Your task to perform on an android device: Do I have any events tomorrow? Image 0: 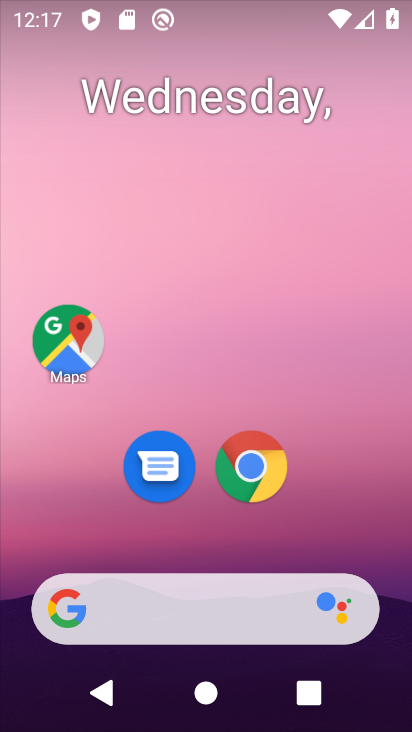
Step 0: drag from (317, 522) to (411, 32)
Your task to perform on an android device: Do I have any events tomorrow? Image 1: 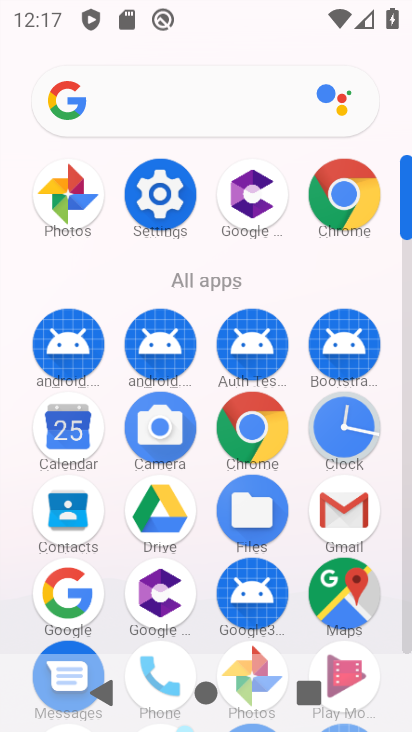
Step 1: click (68, 433)
Your task to perform on an android device: Do I have any events tomorrow? Image 2: 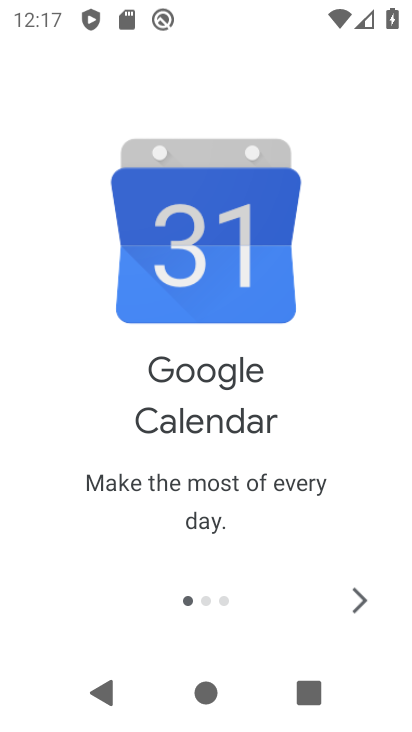
Step 2: click (362, 603)
Your task to perform on an android device: Do I have any events tomorrow? Image 3: 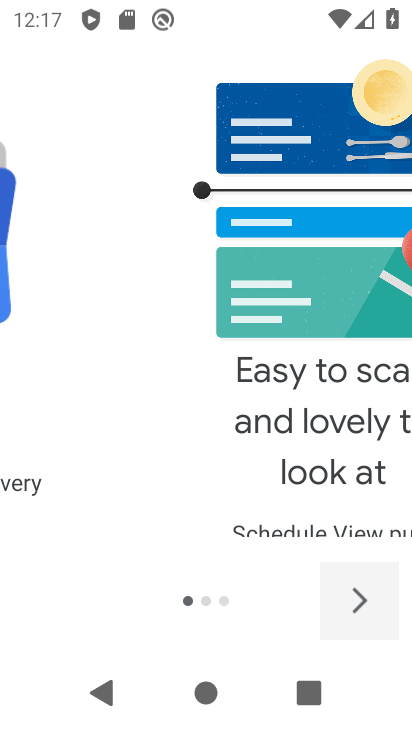
Step 3: click (362, 603)
Your task to perform on an android device: Do I have any events tomorrow? Image 4: 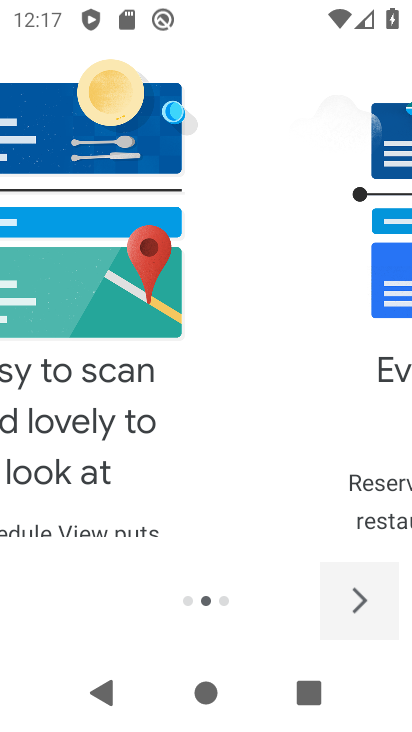
Step 4: click (362, 603)
Your task to perform on an android device: Do I have any events tomorrow? Image 5: 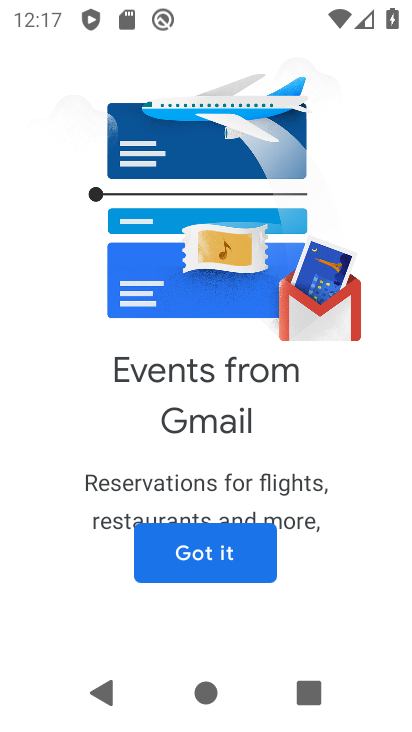
Step 5: click (202, 552)
Your task to perform on an android device: Do I have any events tomorrow? Image 6: 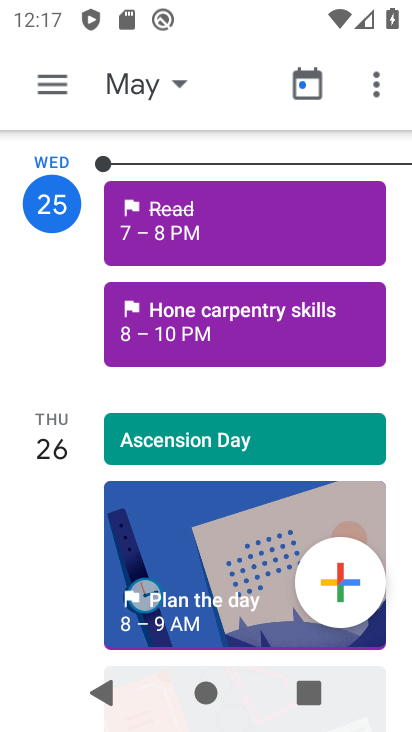
Step 6: click (179, 92)
Your task to perform on an android device: Do I have any events tomorrow? Image 7: 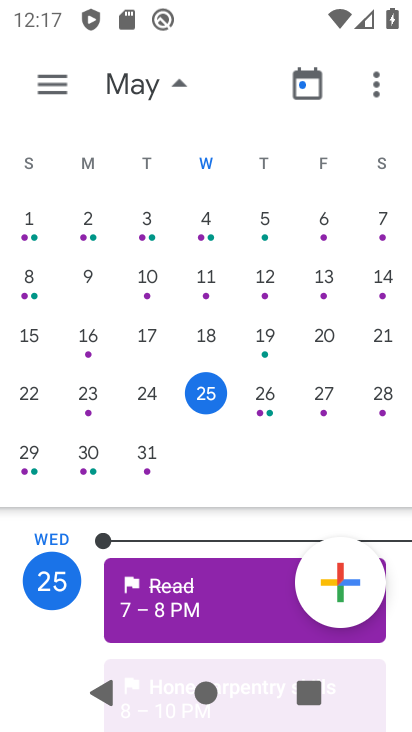
Step 7: click (256, 402)
Your task to perform on an android device: Do I have any events tomorrow? Image 8: 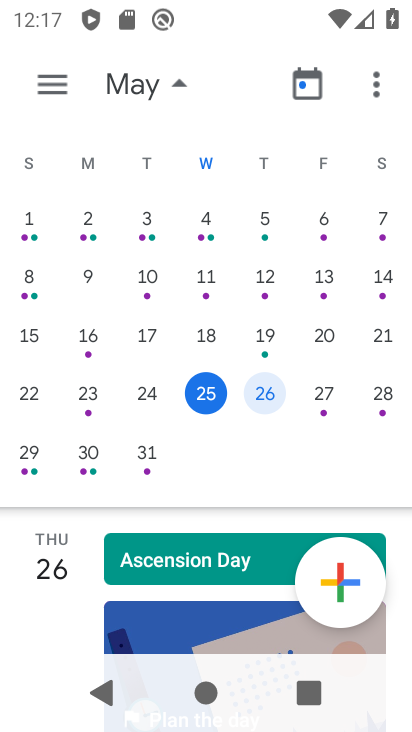
Step 8: click (174, 89)
Your task to perform on an android device: Do I have any events tomorrow? Image 9: 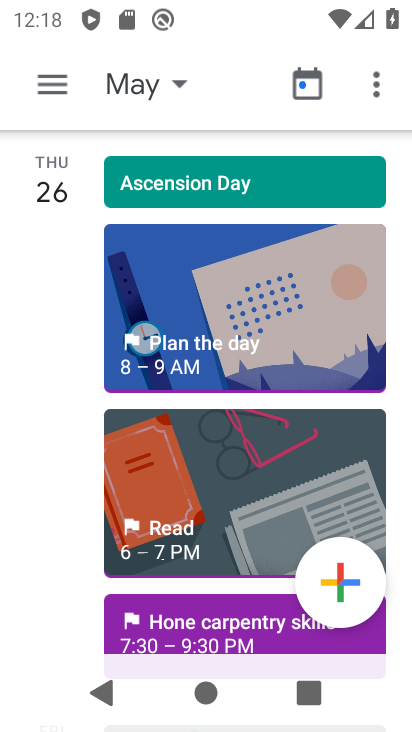
Step 9: task complete